Your task to perform on an android device: toggle sleep mode Image 0: 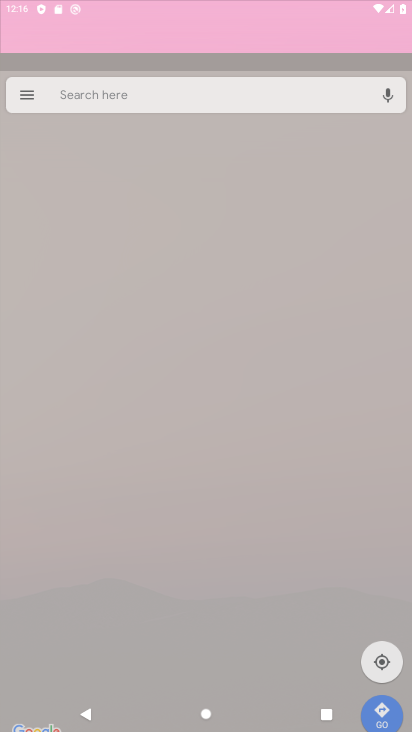
Step 0: click (305, 80)
Your task to perform on an android device: toggle sleep mode Image 1: 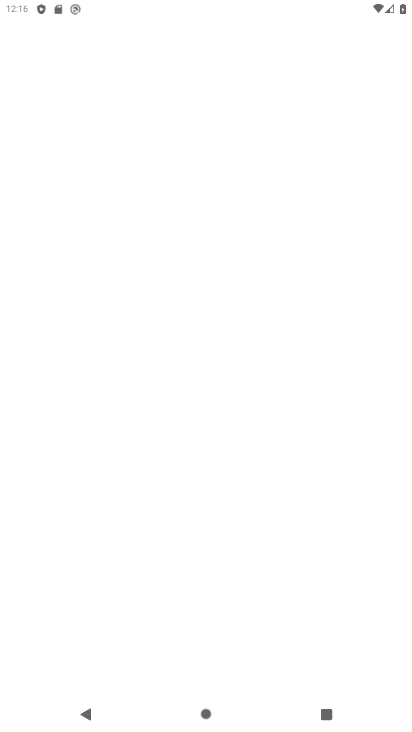
Step 1: drag from (339, 531) to (404, 95)
Your task to perform on an android device: toggle sleep mode Image 2: 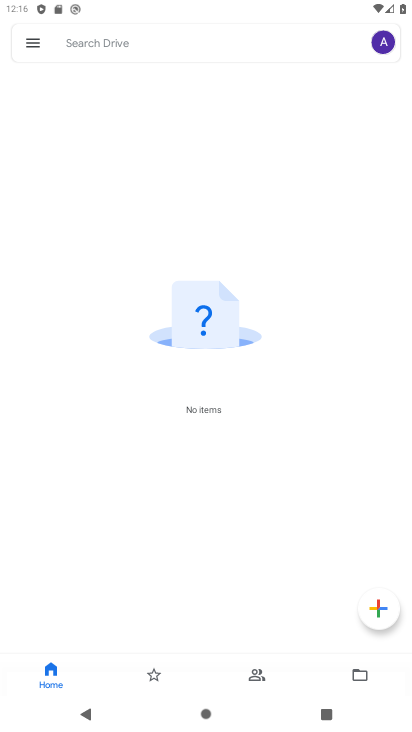
Step 2: press home button
Your task to perform on an android device: toggle sleep mode Image 3: 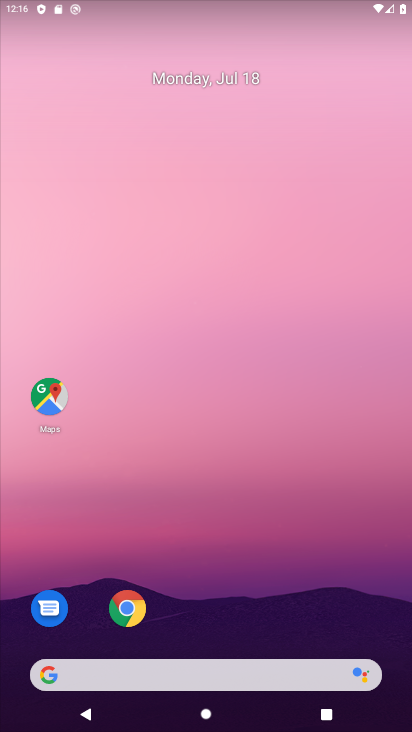
Step 3: drag from (364, 609) to (401, 5)
Your task to perform on an android device: toggle sleep mode Image 4: 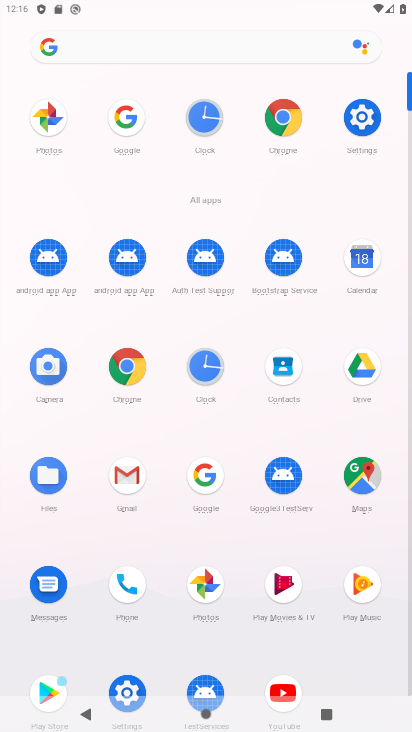
Step 4: click (371, 121)
Your task to perform on an android device: toggle sleep mode Image 5: 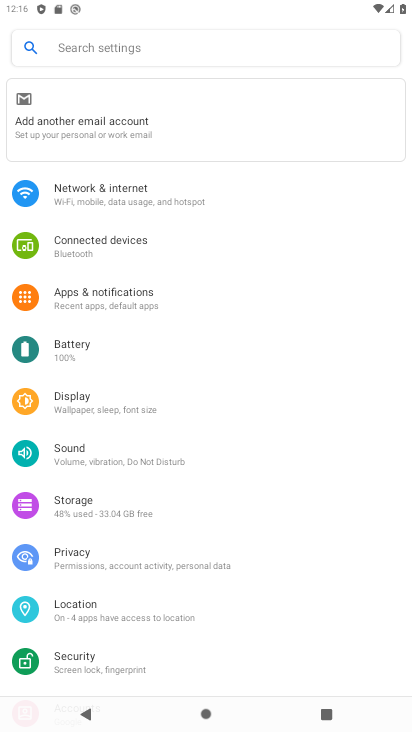
Step 5: click (89, 406)
Your task to perform on an android device: toggle sleep mode Image 6: 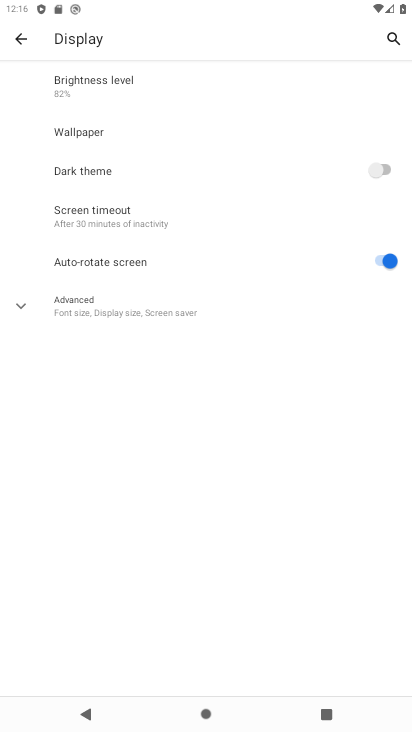
Step 6: click (76, 212)
Your task to perform on an android device: toggle sleep mode Image 7: 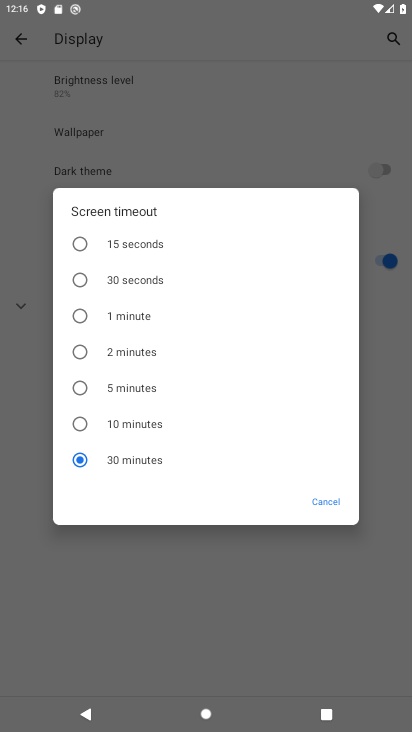
Step 7: click (98, 352)
Your task to perform on an android device: toggle sleep mode Image 8: 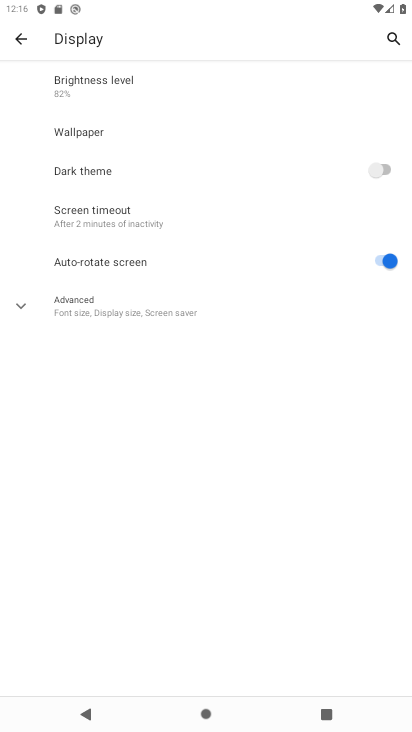
Step 8: task complete